Your task to perform on an android device: turn on showing notifications on the lock screen Image 0: 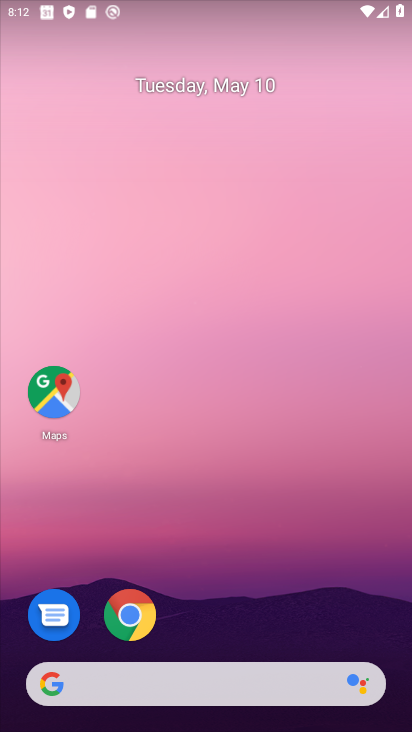
Step 0: drag from (205, 627) to (163, 310)
Your task to perform on an android device: turn on showing notifications on the lock screen Image 1: 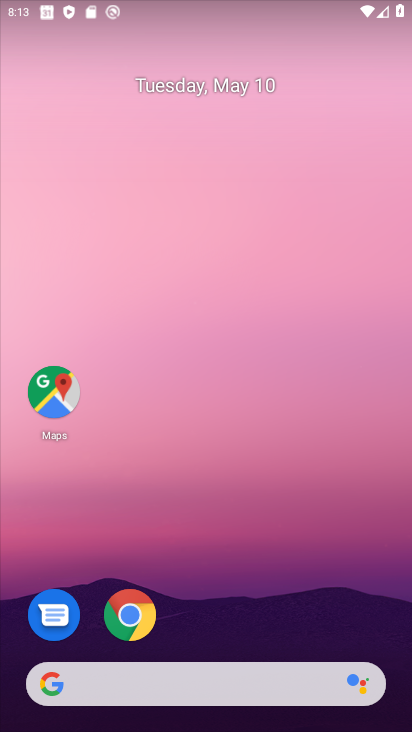
Step 1: drag from (190, 603) to (190, 215)
Your task to perform on an android device: turn on showing notifications on the lock screen Image 2: 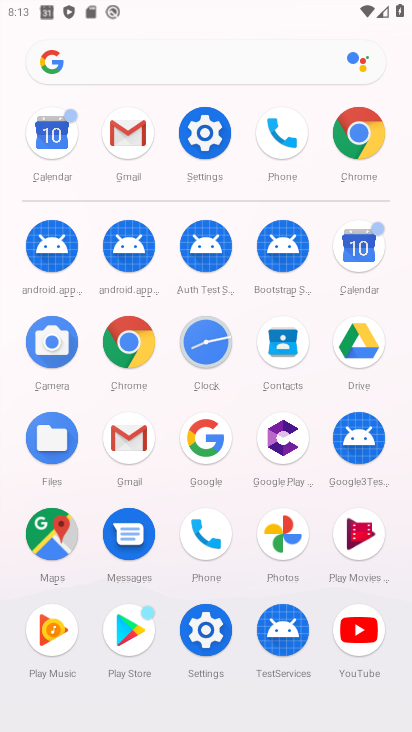
Step 2: click (208, 126)
Your task to perform on an android device: turn on showing notifications on the lock screen Image 3: 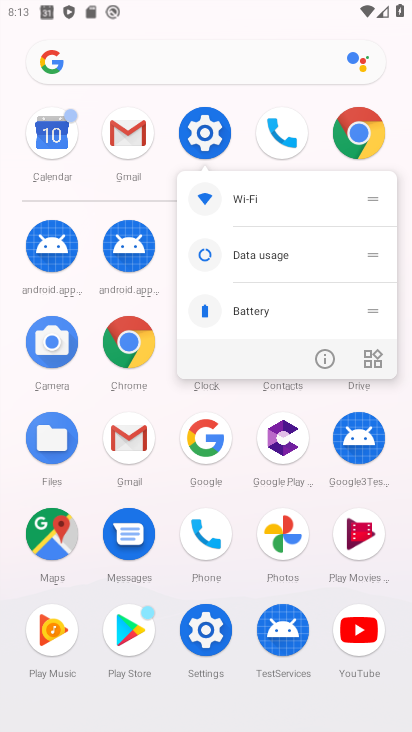
Step 3: click (320, 362)
Your task to perform on an android device: turn on showing notifications on the lock screen Image 4: 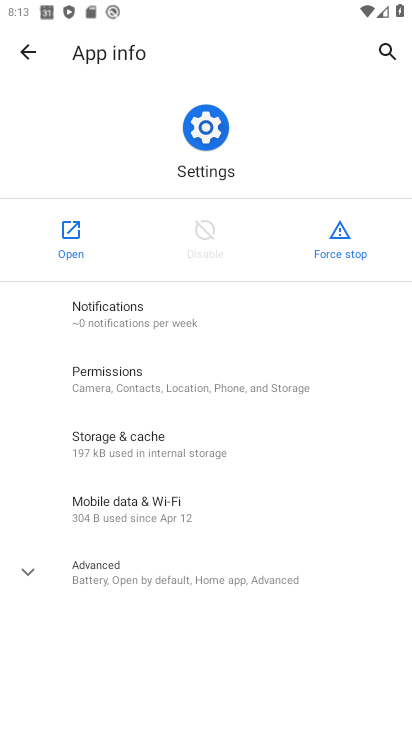
Step 4: click (64, 226)
Your task to perform on an android device: turn on showing notifications on the lock screen Image 5: 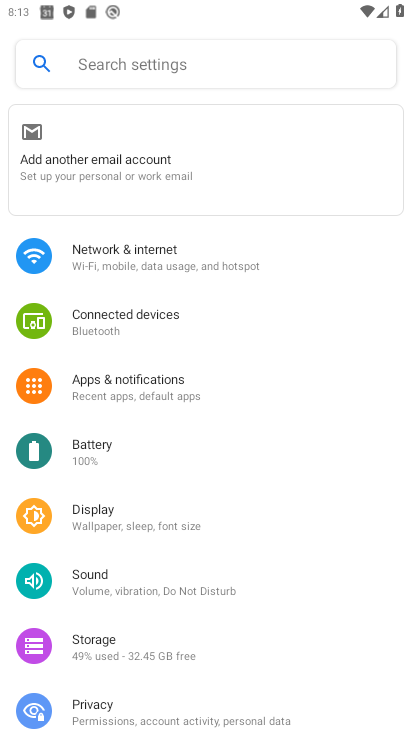
Step 5: click (153, 378)
Your task to perform on an android device: turn on showing notifications on the lock screen Image 6: 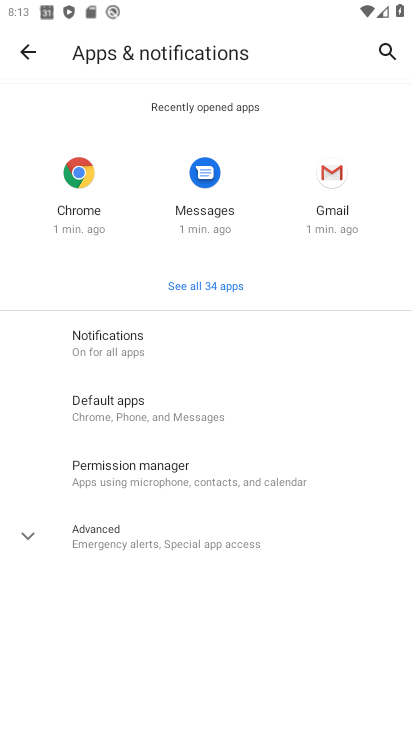
Step 6: click (132, 345)
Your task to perform on an android device: turn on showing notifications on the lock screen Image 7: 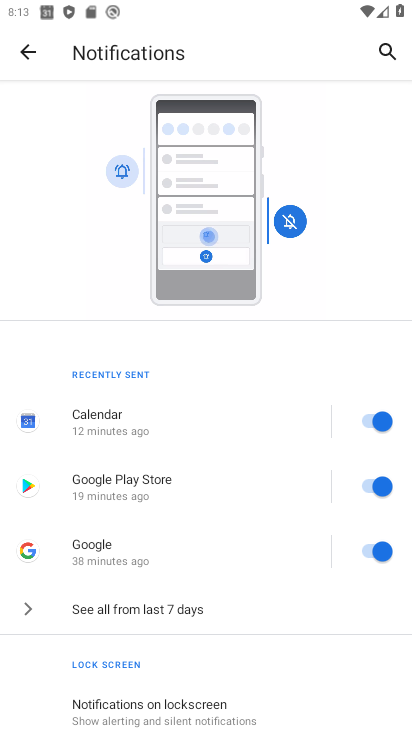
Step 7: drag from (216, 565) to (249, 285)
Your task to perform on an android device: turn on showing notifications on the lock screen Image 8: 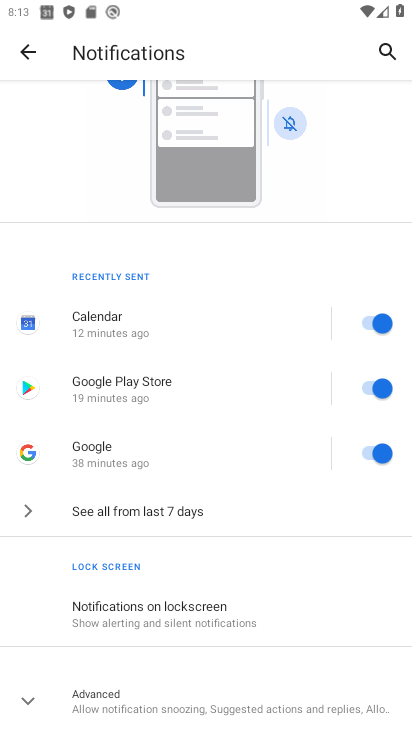
Step 8: click (212, 639)
Your task to perform on an android device: turn on showing notifications on the lock screen Image 9: 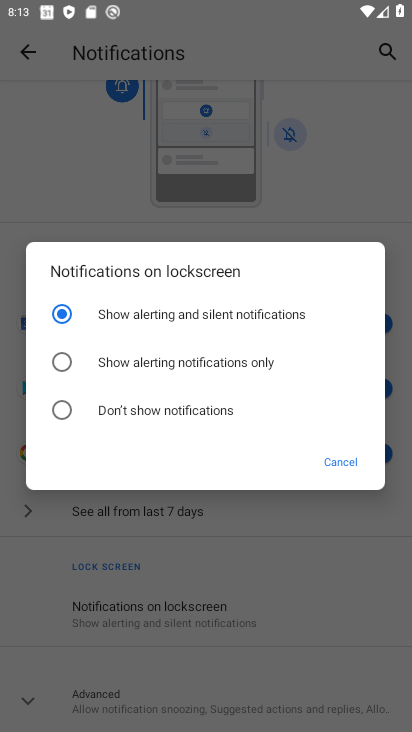
Step 9: click (124, 366)
Your task to perform on an android device: turn on showing notifications on the lock screen Image 10: 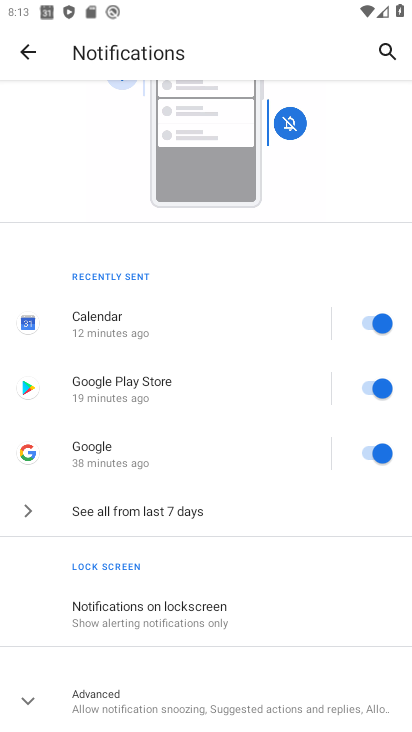
Step 10: task complete